Your task to perform on an android device: Show me the alarms in the clock app Image 0: 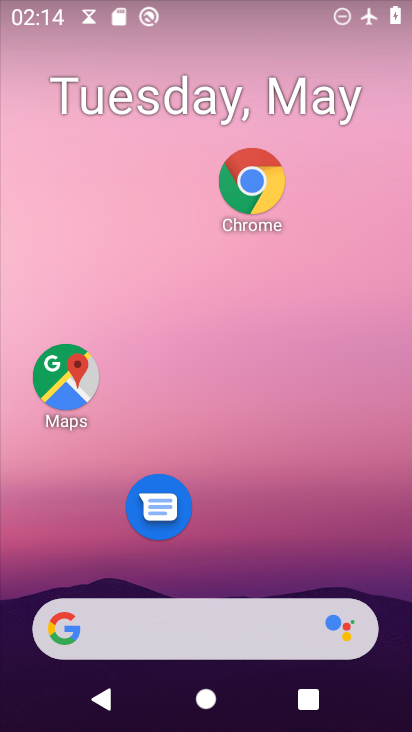
Step 0: drag from (261, 562) to (300, 263)
Your task to perform on an android device: Show me the alarms in the clock app Image 1: 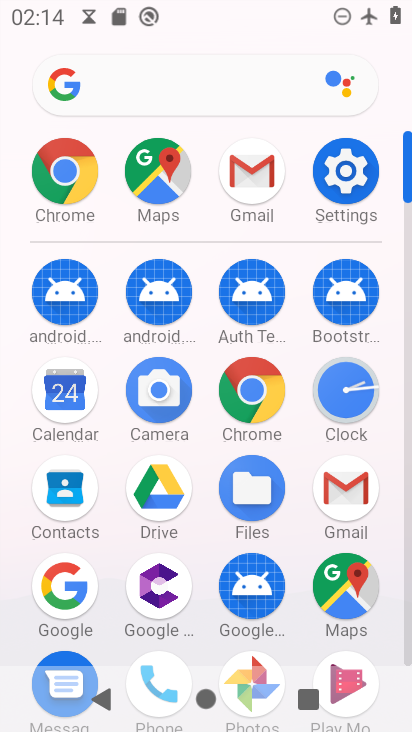
Step 1: click (357, 395)
Your task to perform on an android device: Show me the alarms in the clock app Image 2: 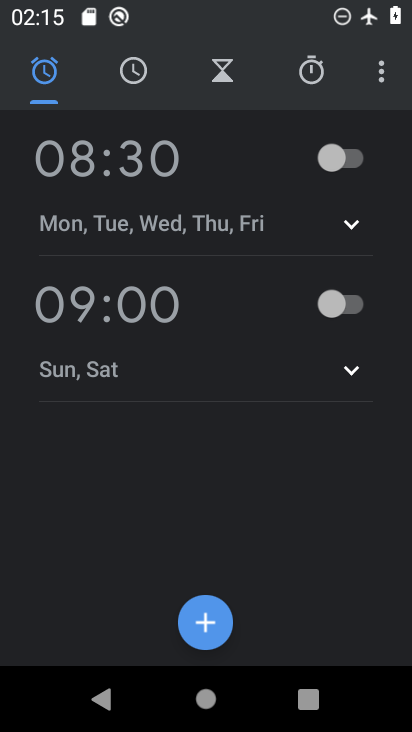
Step 2: task complete